Your task to perform on an android device: open chrome and create a bookmark for the current page Image 0: 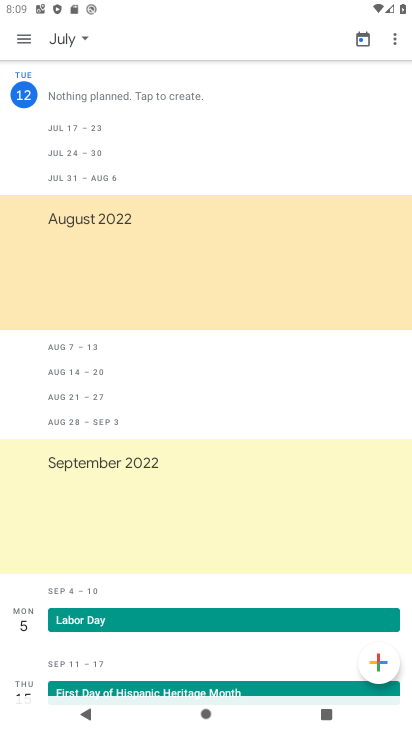
Step 0: press home button
Your task to perform on an android device: open chrome and create a bookmark for the current page Image 1: 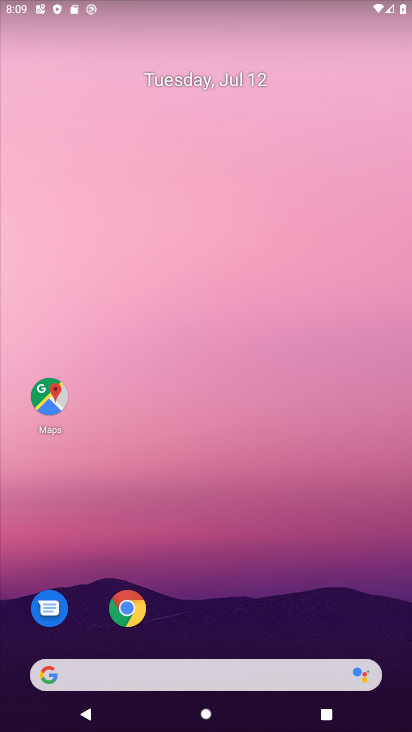
Step 1: click (119, 617)
Your task to perform on an android device: open chrome and create a bookmark for the current page Image 2: 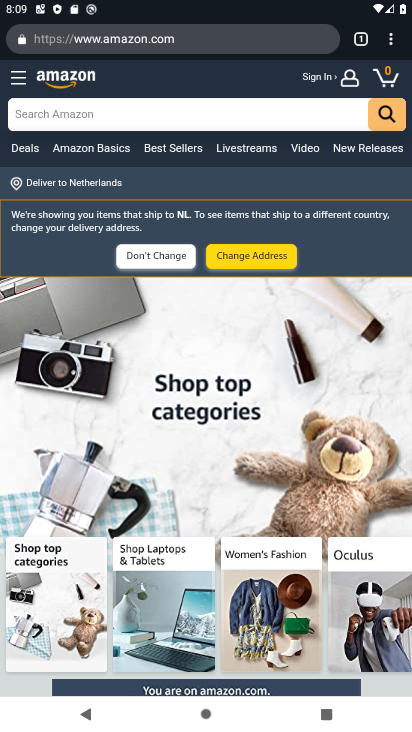
Step 2: click (387, 36)
Your task to perform on an android device: open chrome and create a bookmark for the current page Image 3: 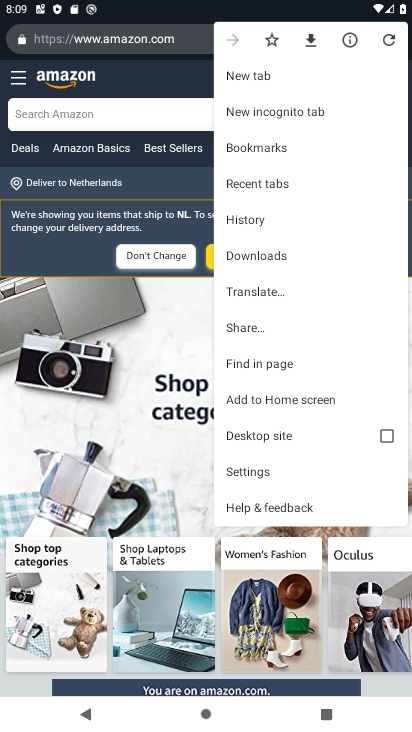
Step 3: click (270, 40)
Your task to perform on an android device: open chrome and create a bookmark for the current page Image 4: 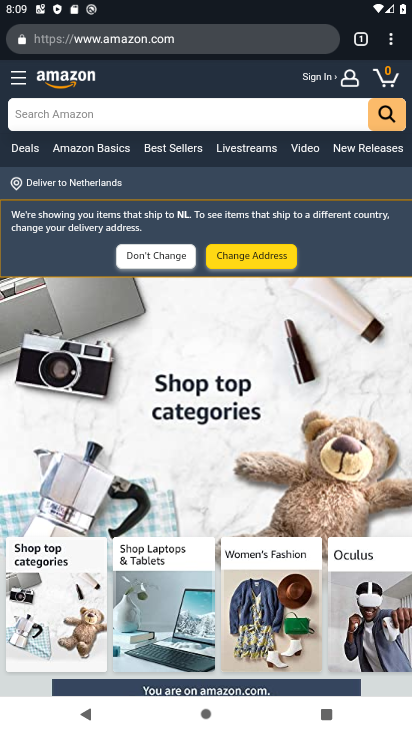
Step 4: task complete